Your task to perform on an android device: turn off sleep mode Image 0: 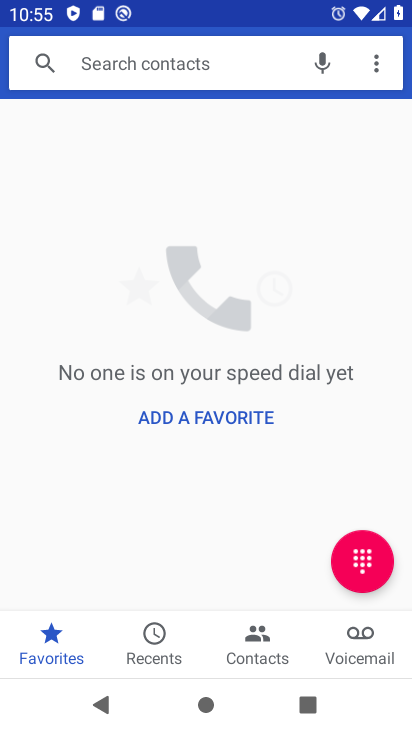
Step 0: press back button
Your task to perform on an android device: turn off sleep mode Image 1: 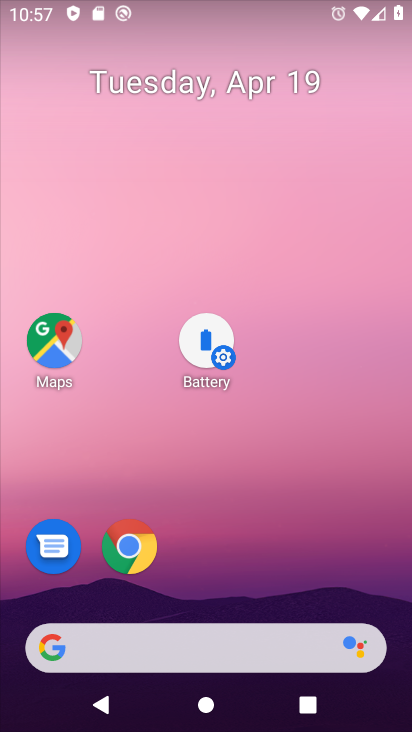
Step 1: drag from (273, 498) to (283, 76)
Your task to perform on an android device: turn off sleep mode Image 2: 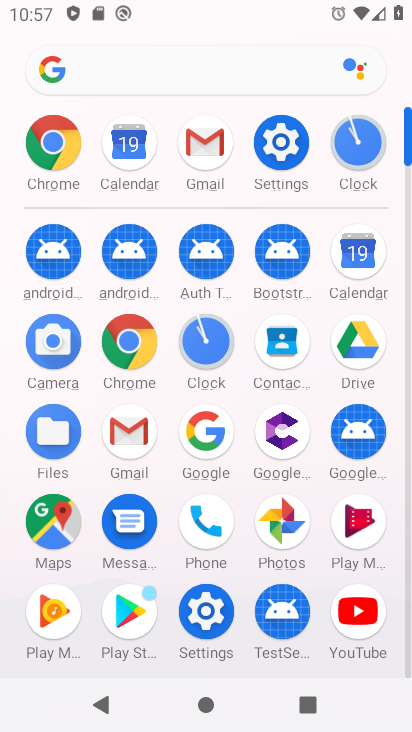
Step 2: click (285, 134)
Your task to perform on an android device: turn off sleep mode Image 3: 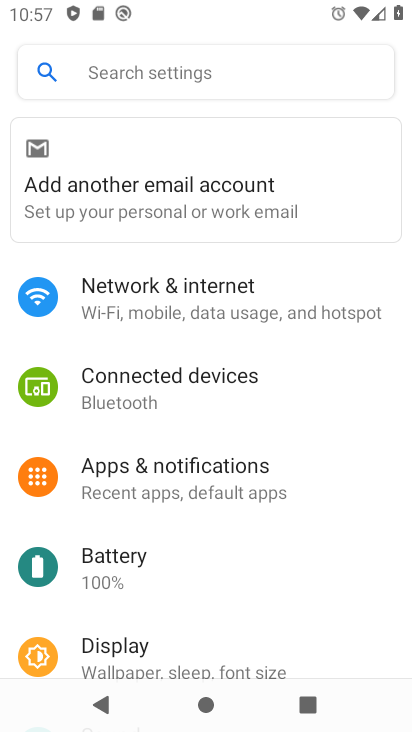
Step 3: click (142, 71)
Your task to perform on an android device: turn off sleep mode Image 4: 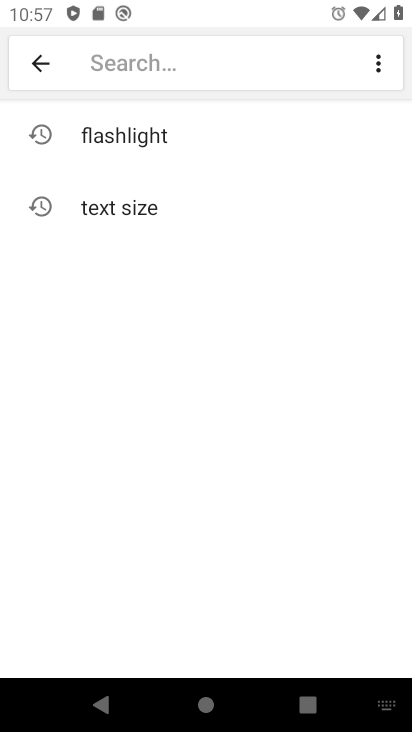
Step 4: type "sleep mode"
Your task to perform on an android device: turn off sleep mode Image 5: 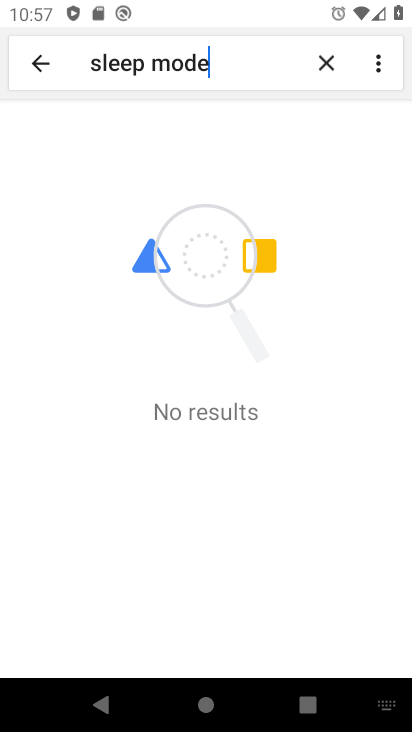
Step 5: task complete